Your task to perform on an android device: Open Chrome and go to the settings page Image 0: 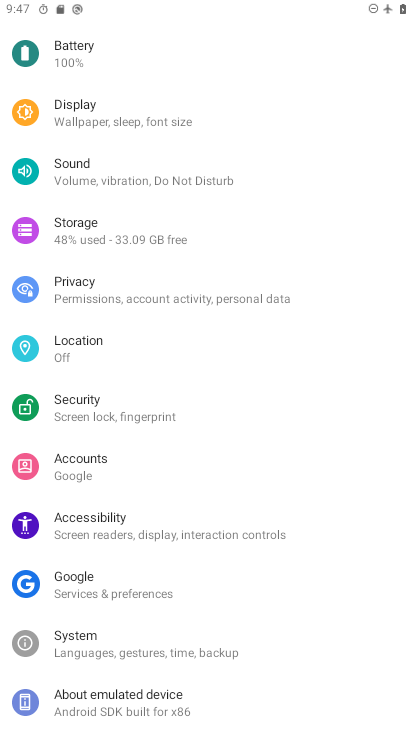
Step 0: press home button
Your task to perform on an android device: Open Chrome and go to the settings page Image 1: 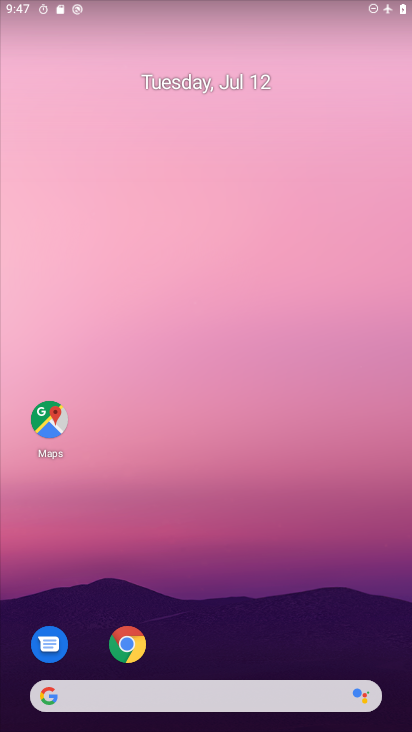
Step 1: click (133, 651)
Your task to perform on an android device: Open Chrome and go to the settings page Image 2: 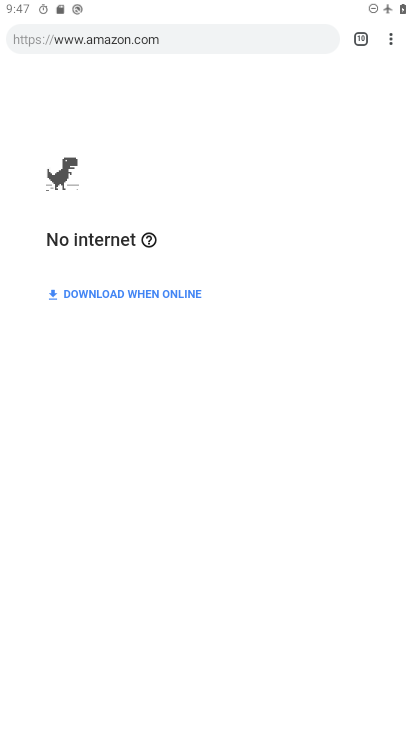
Step 2: click (397, 39)
Your task to perform on an android device: Open Chrome and go to the settings page Image 3: 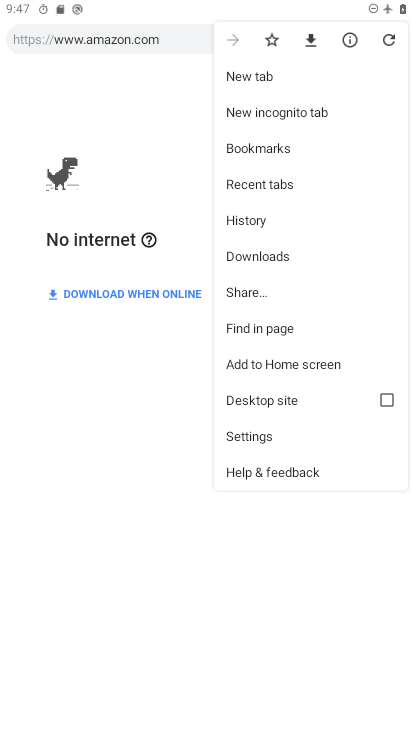
Step 3: click (270, 424)
Your task to perform on an android device: Open Chrome and go to the settings page Image 4: 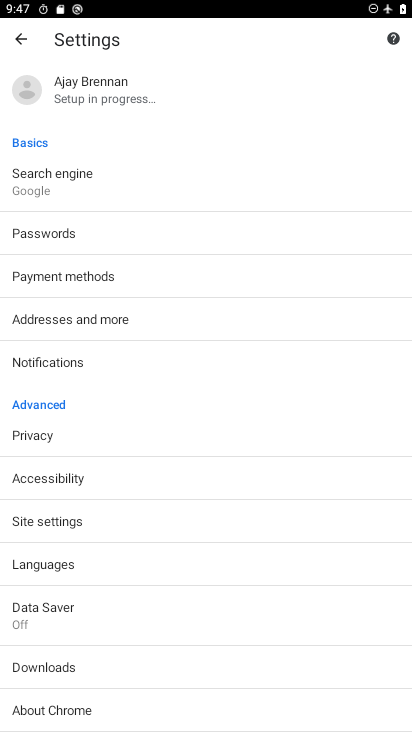
Step 4: task complete